Your task to perform on an android device: toggle sleep mode Image 0: 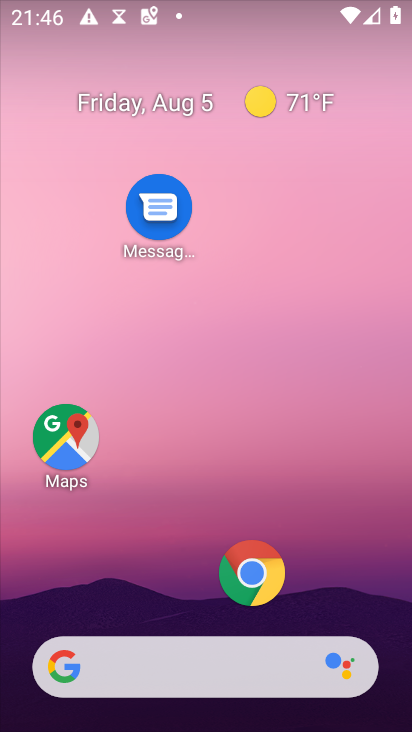
Step 0: drag from (312, 544) to (321, 70)
Your task to perform on an android device: toggle sleep mode Image 1: 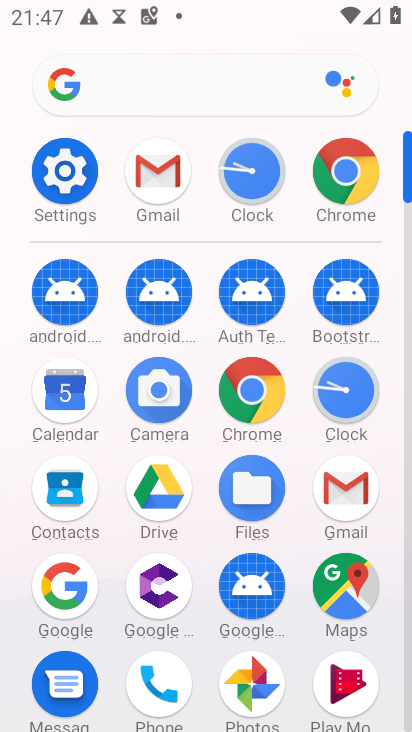
Step 1: click (63, 161)
Your task to perform on an android device: toggle sleep mode Image 2: 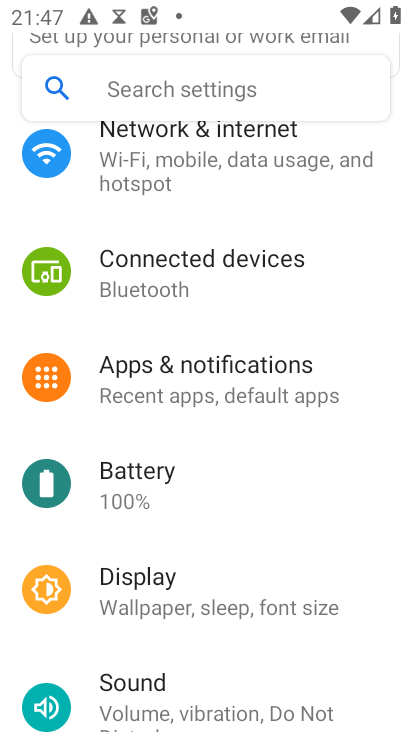
Step 2: click (215, 601)
Your task to perform on an android device: toggle sleep mode Image 3: 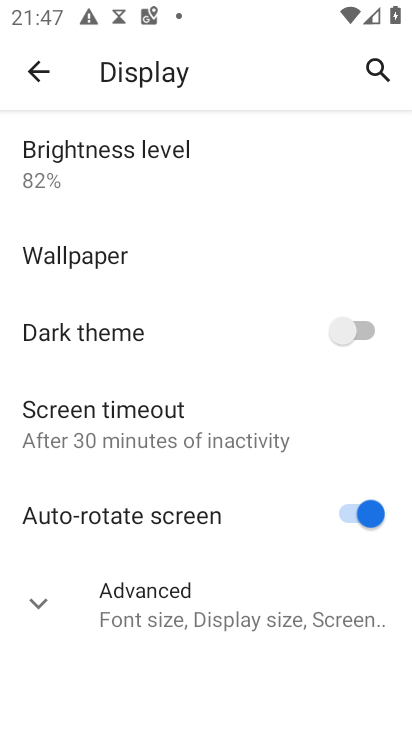
Step 3: click (38, 598)
Your task to perform on an android device: toggle sleep mode Image 4: 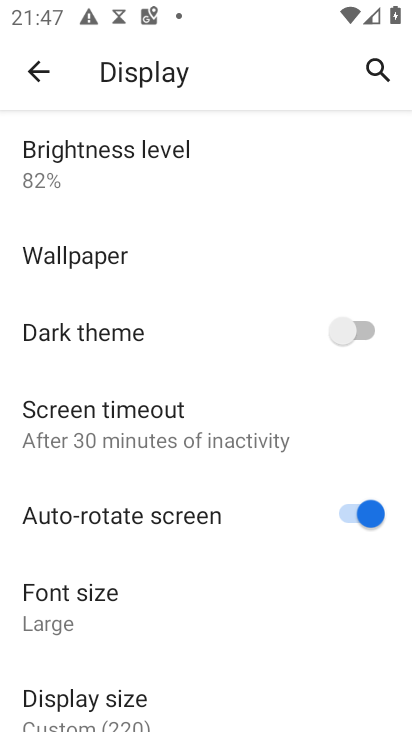
Step 4: task complete